Your task to perform on an android device: toggle show notifications on the lock screen Image 0: 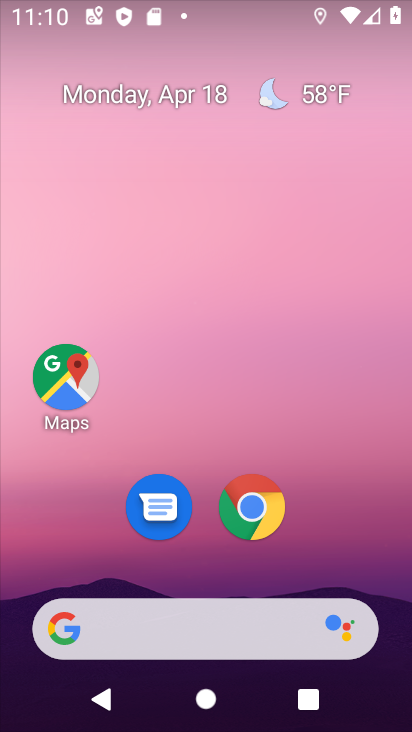
Step 0: drag from (207, 582) to (287, 1)
Your task to perform on an android device: toggle show notifications on the lock screen Image 1: 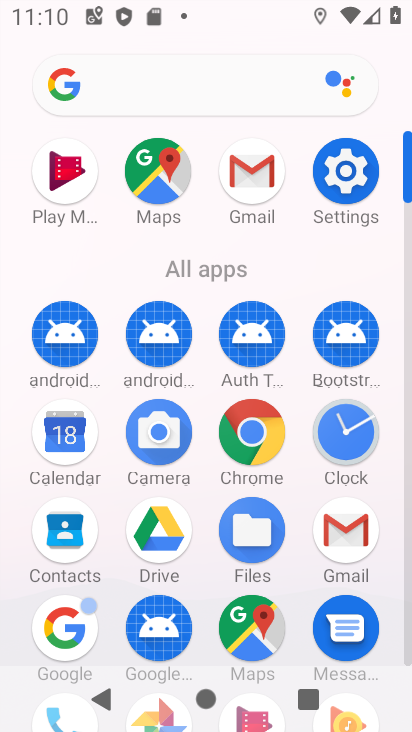
Step 1: click (359, 178)
Your task to perform on an android device: toggle show notifications on the lock screen Image 2: 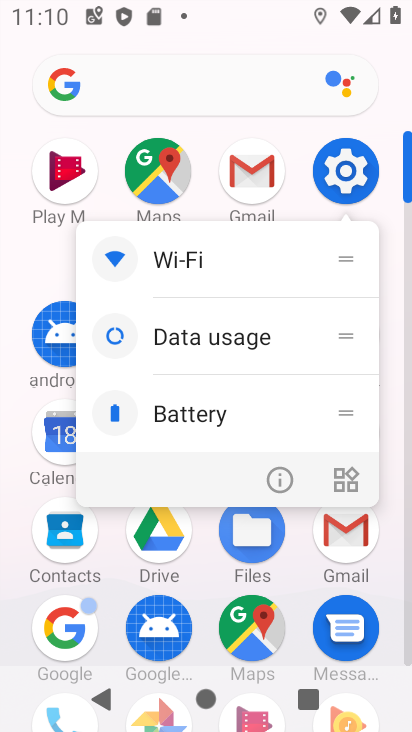
Step 2: click (351, 163)
Your task to perform on an android device: toggle show notifications on the lock screen Image 3: 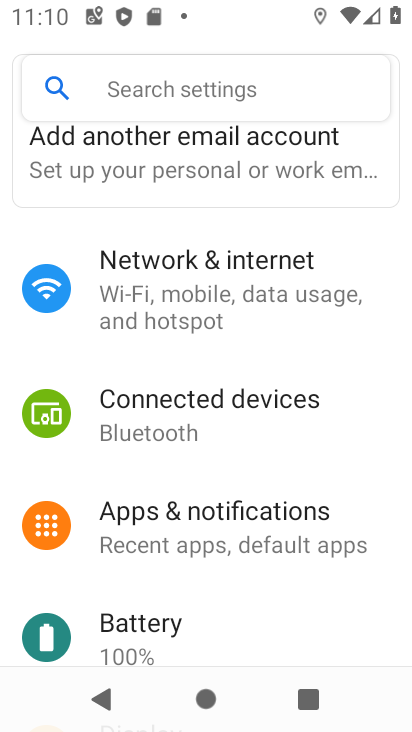
Step 3: click (204, 522)
Your task to perform on an android device: toggle show notifications on the lock screen Image 4: 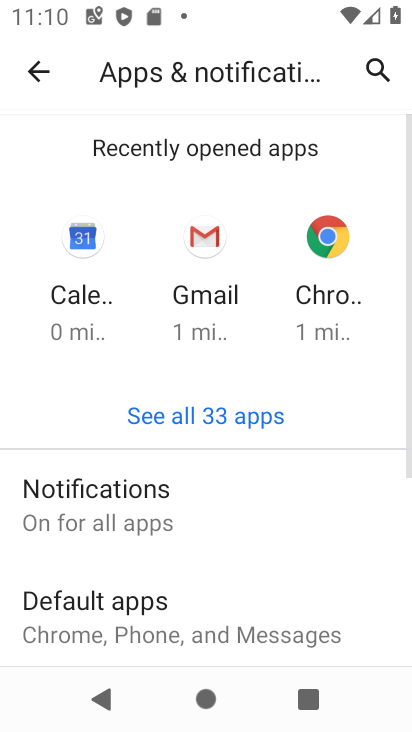
Step 4: click (151, 526)
Your task to perform on an android device: toggle show notifications on the lock screen Image 5: 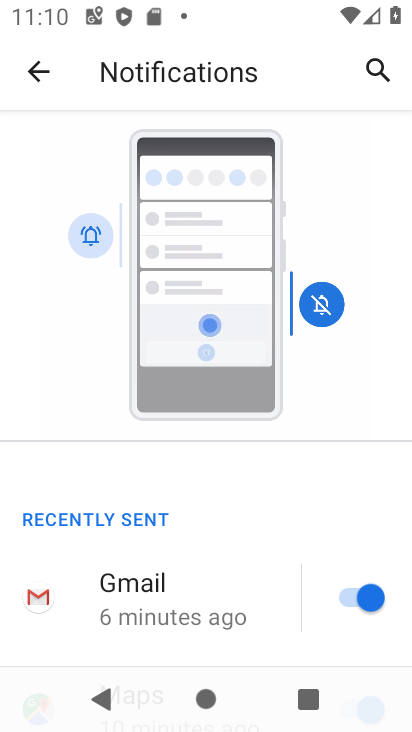
Step 5: drag from (220, 546) to (329, 100)
Your task to perform on an android device: toggle show notifications on the lock screen Image 6: 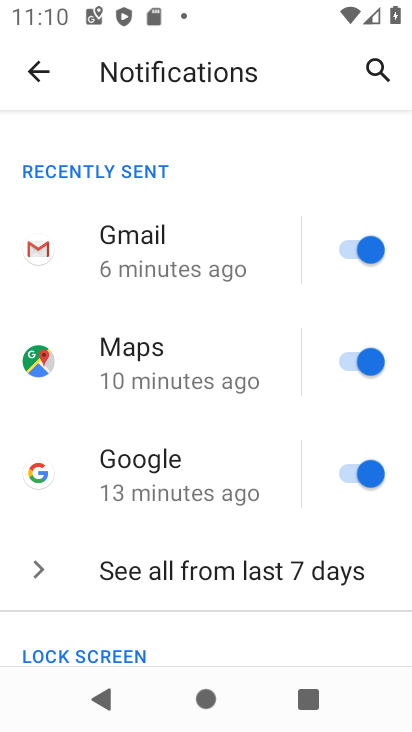
Step 6: drag from (200, 522) to (265, 0)
Your task to perform on an android device: toggle show notifications on the lock screen Image 7: 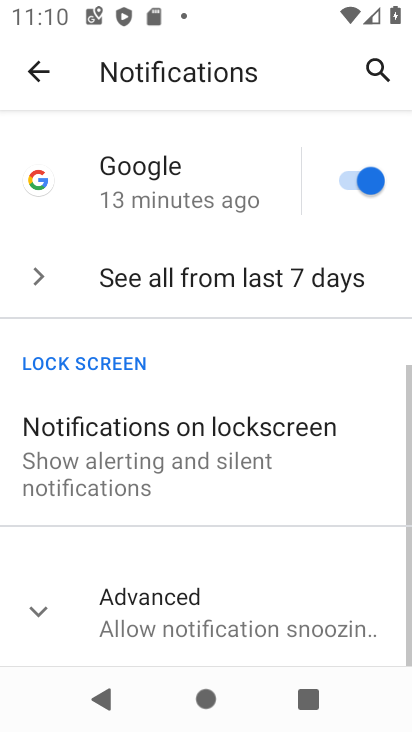
Step 7: click (156, 458)
Your task to perform on an android device: toggle show notifications on the lock screen Image 8: 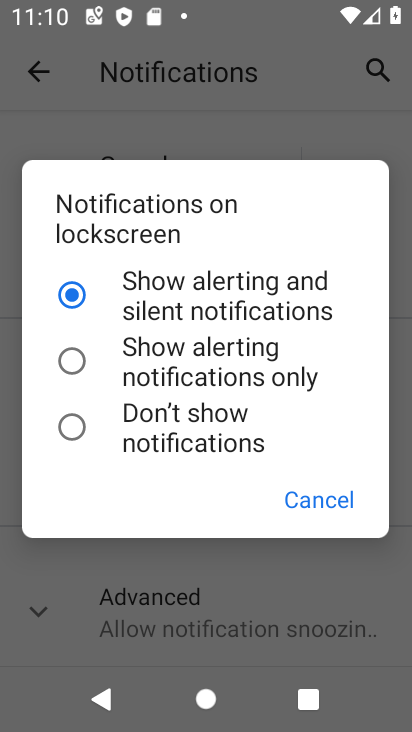
Step 8: click (70, 422)
Your task to perform on an android device: toggle show notifications on the lock screen Image 9: 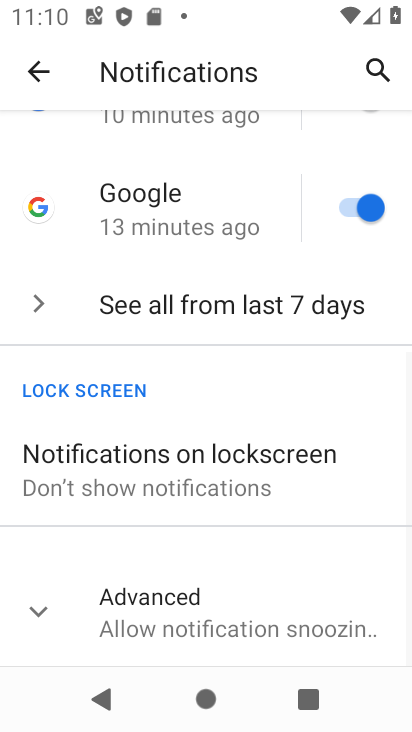
Step 9: task complete